Your task to perform on an android device: What's the weather going to be this weekend? Image 0: 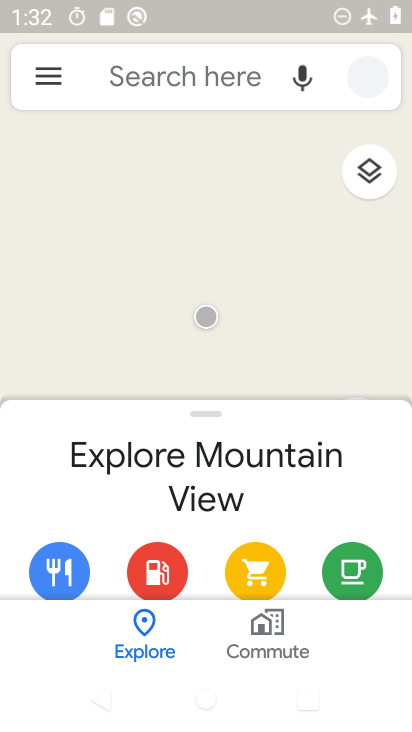
Step 0: drag from (411, 68) to (378, 145)
Your task to perform on an android device: What's the weather going to be this weekend? Image 1: 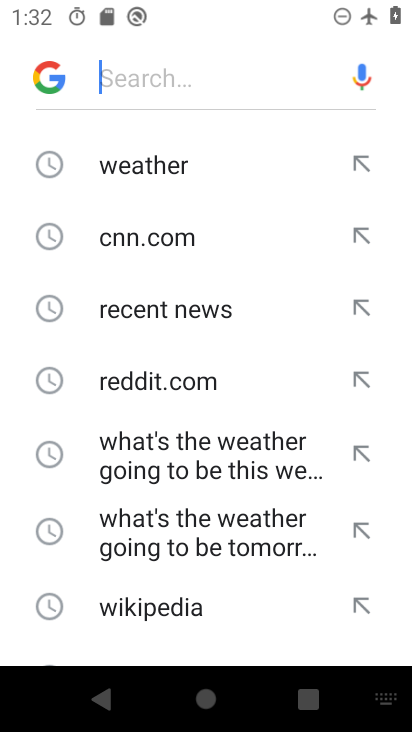
Step 1: task complete